Your task to perform on an android device: toggle improve location accuracy Image 0: 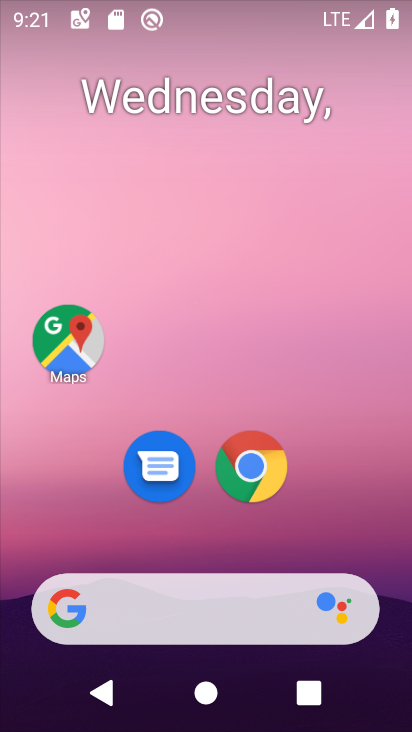
Step 0: drag from (239, 700) to (212, 152)
Your task to perform on an android device: toggle improve location accuracy Image 1: 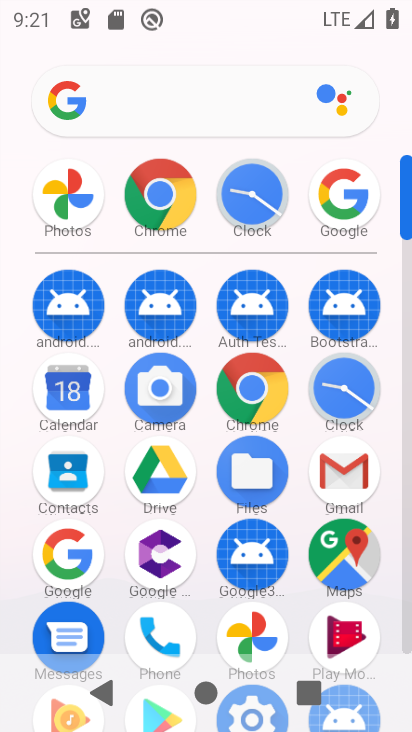
Step 1: drag from (292, 637) to (298, 238)
Your task to perform on an android device: toggle improve location accuracy Image 2: 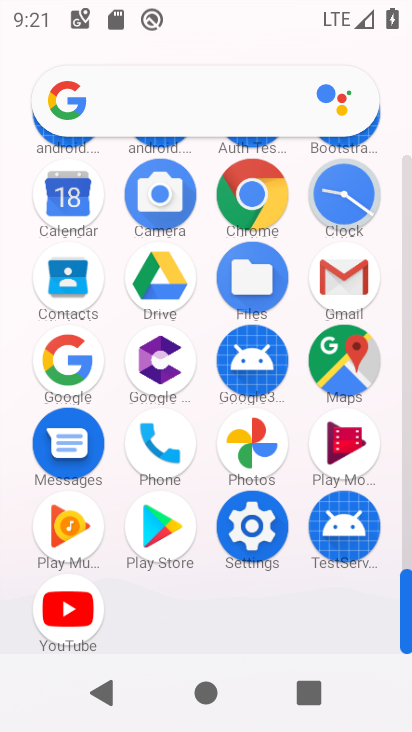
Step 2: click (253, 530)
Your task to perform on an android device: toggle improve location accuracy Image 3: 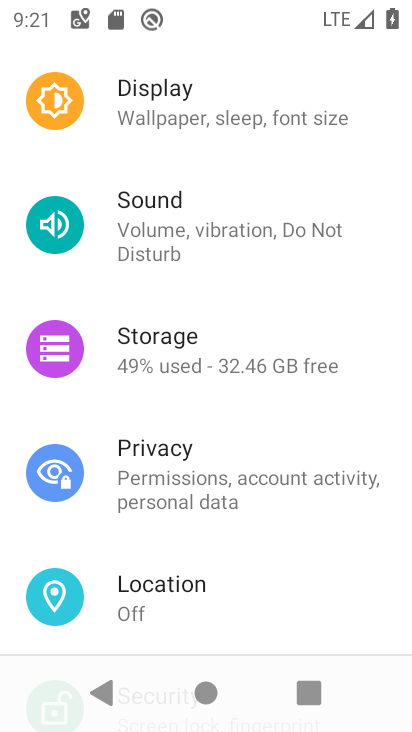
Step 3: click (149, 589)
Your task to perform on an android device: toggle improve location accuracy Image 4: 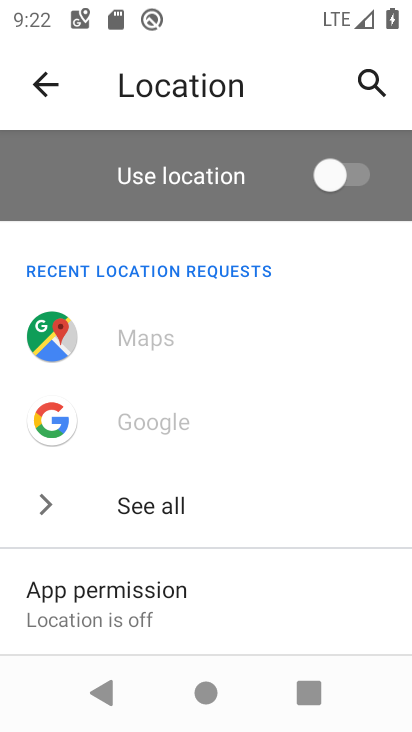
Step 4: drag from (160, 629) to (162, 258)
Your task to perform on an android device: toggle improve location accuracy Image 5: 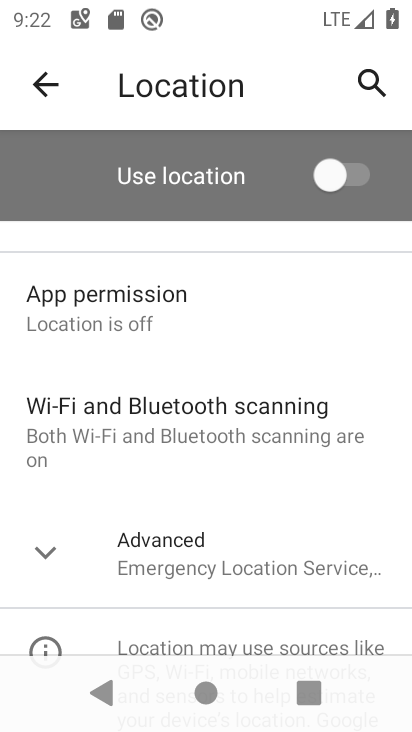
Step 5: click (175, 542)
Your task to perform on an android device: toggle improve location accuracy Image 6: 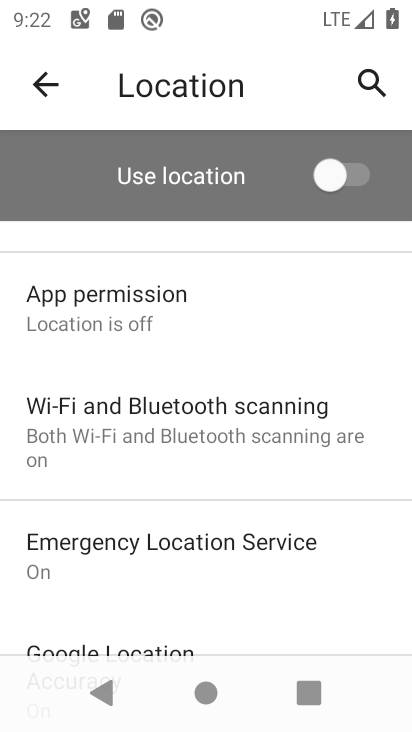
Step 6: drag from (188, 618) to (190, 305)
Your task to perform on an android device: toggle improve location accuracy Image 7: 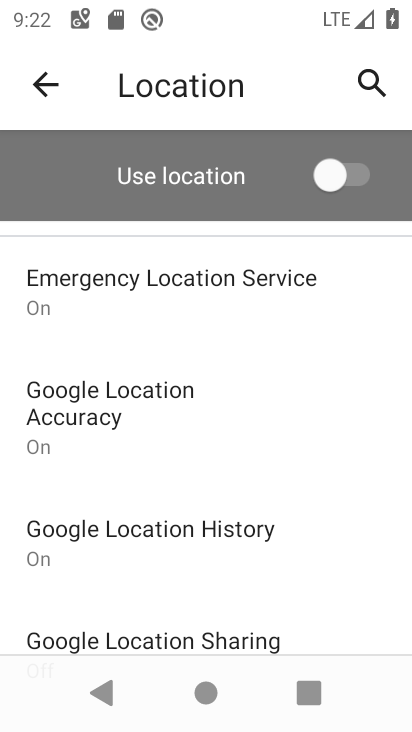
Step 7: click (115, 390)
Your task to perform on an android device: toggle improve location accuracy Image 8: 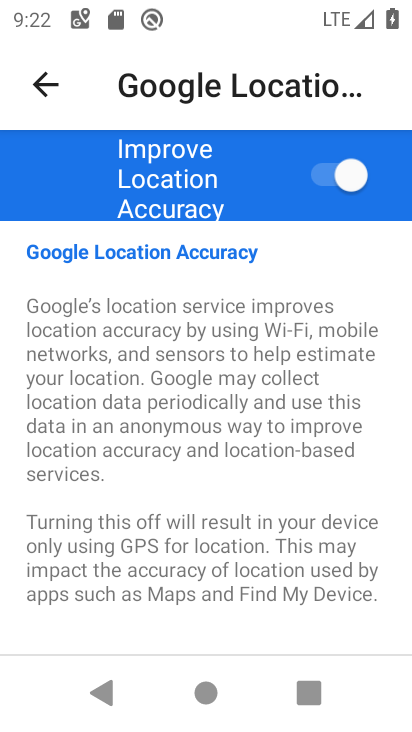
Step 8: click (319, 171)
Your task to perform on an android device: toggle improve location accuracy Image 9: 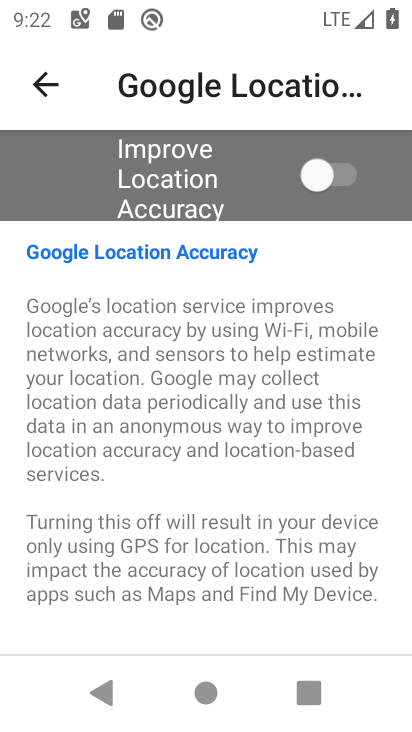
Step 9: task complete